Your task to perform on an android device: Check the weather Image 0: 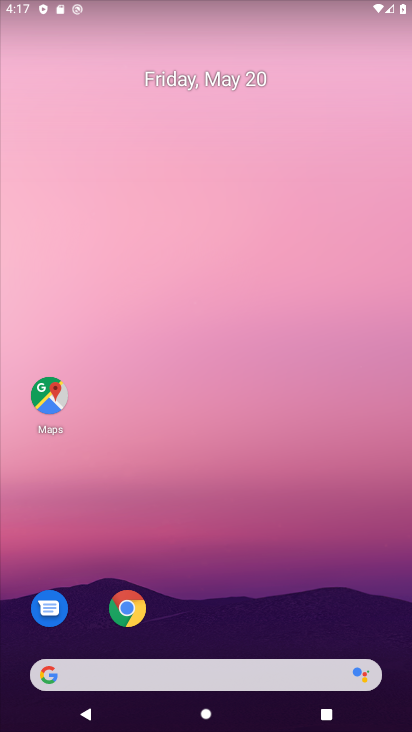
Step 0: click (188, 658)
Your task to perform on an android device: Check the weather Image 1: 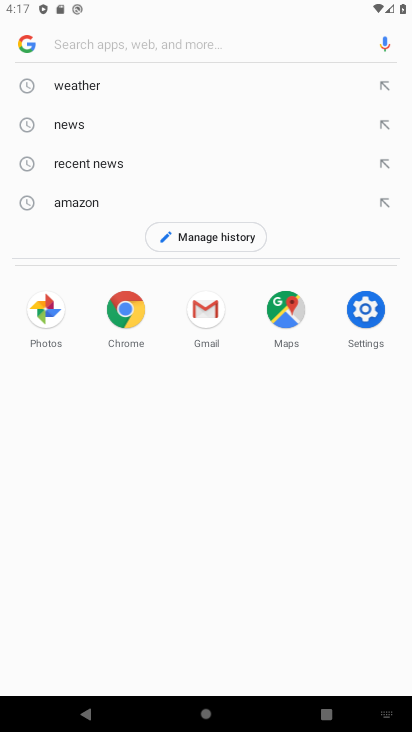
Step 1: click (74, 67)
Your task to perform on an android device: Check the weather Image 2: 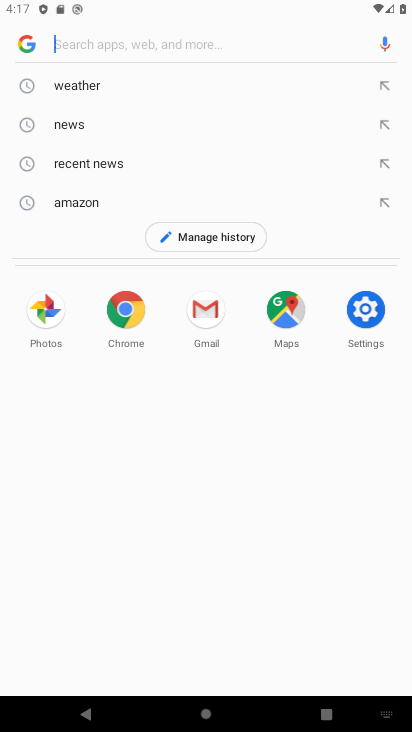
Step 2: click (67, 78)
Your task to perform on an android device: Check the weather Image 3: 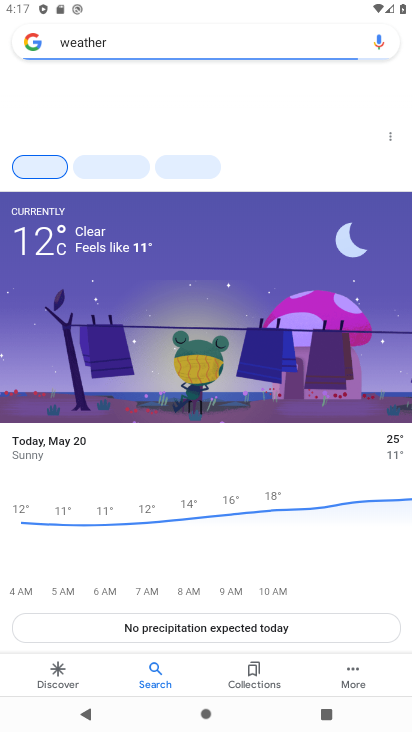
Step 3: task complete